Your task to perform on an android device: turn on sleep mode Image 0: 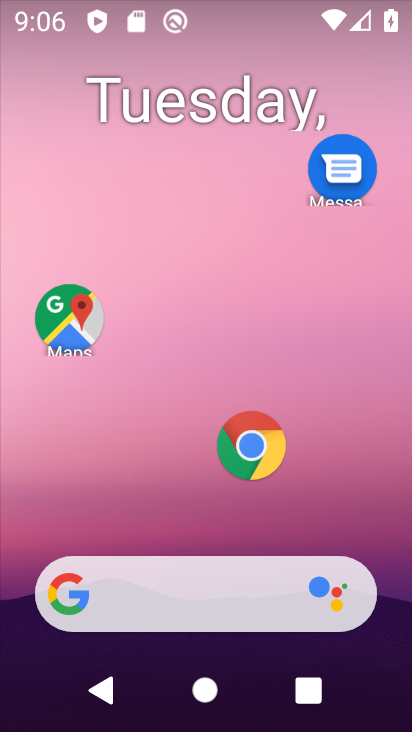
Step 0: task impossible